Your task to perform on an android device: Go to Amazon Image 0: 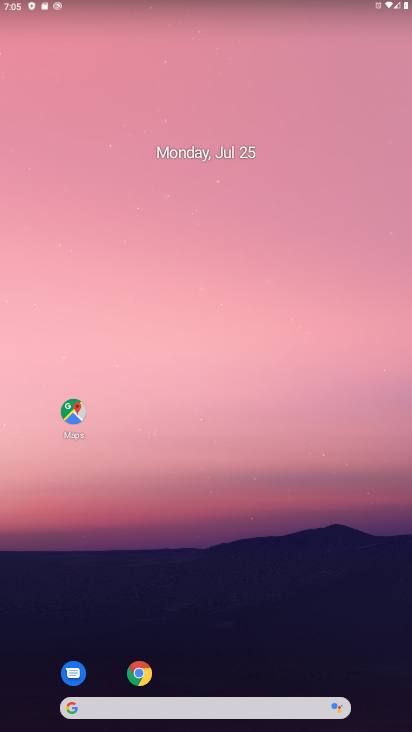
Step 0: drag from (327, 647) to (207, 8)
Your task to perform on an android device: Go to Amazon Image 1: 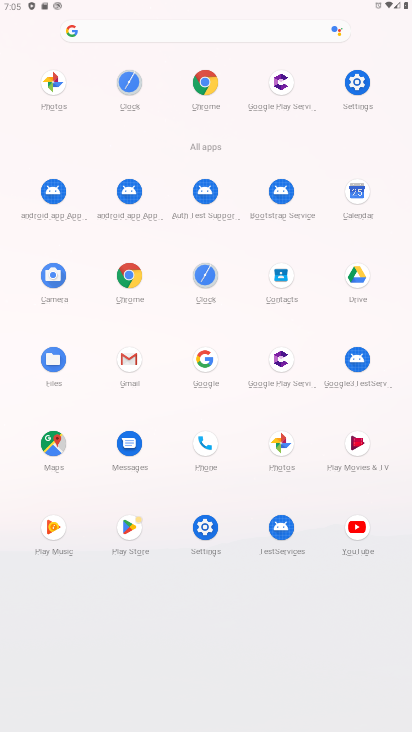
Step 1: click (209, 366)
Your task to perform on an android device: Go to Amazon Image 2: 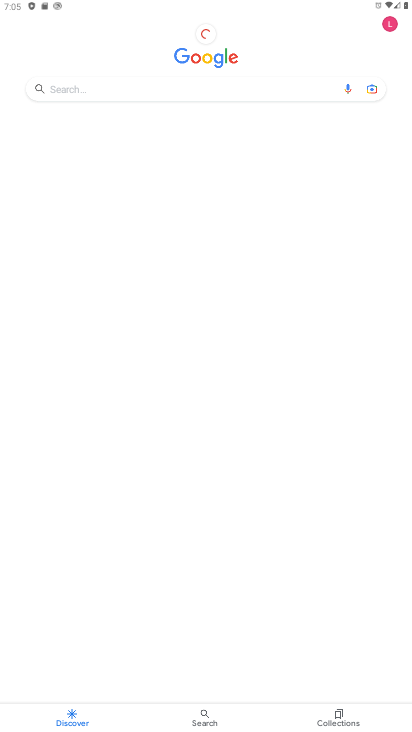
Step 2: click (54, 92)
Your task to perform on an android device: Go to Amazon Image 3: 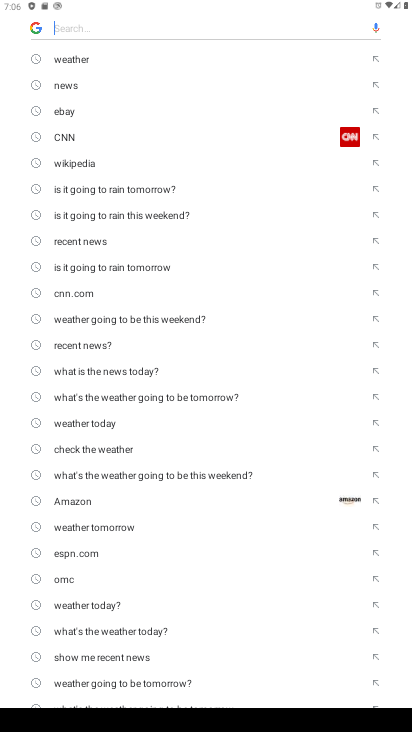
Step 3: click (85, 499)
Your task to perform on an android device: Go to Amazon Image 4: 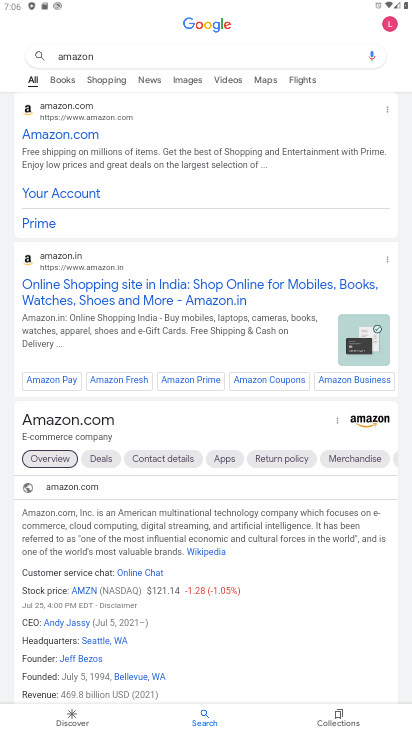
Step 4: task complete